Your task to perform on an android device: turn on translation in the chrome app Image 0: 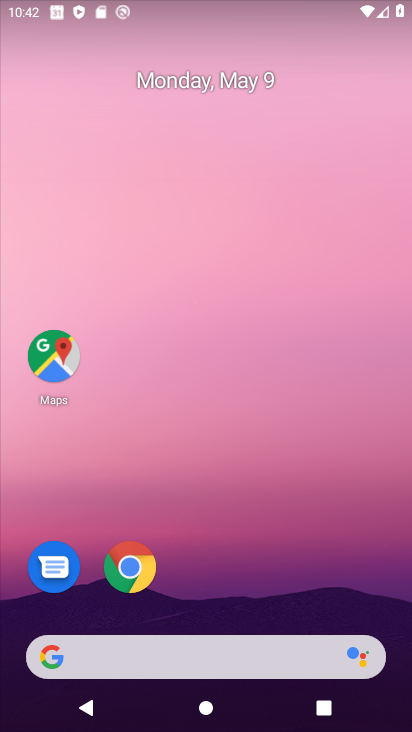
Step 0: drag from (354, 620) to (349, 84)
Your task to perform on an android device: turn on translation in the chrome app Image 1: 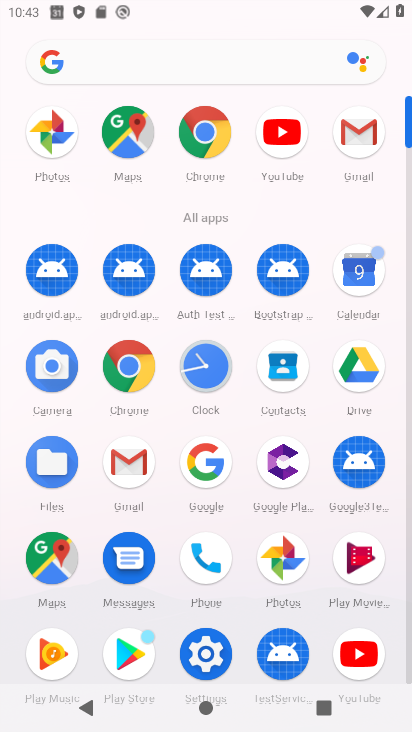
Step 1: click (200, 150)
Your task to perform on an android device: turn on translation in the chrome app Image 2: 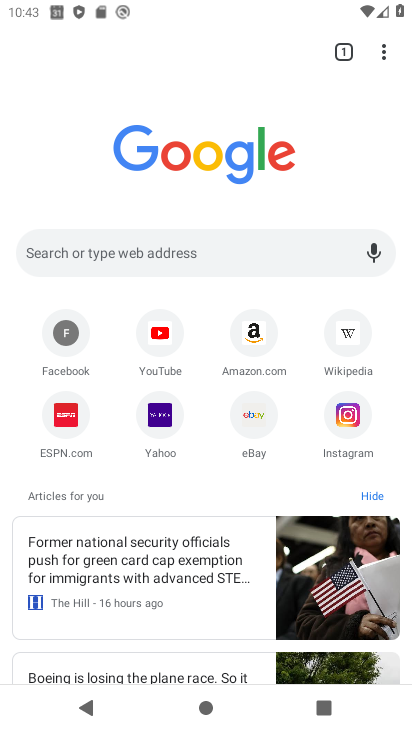
Step 2: click (384, 41)
Your task to perform on an android device: turn on translation in the chrome app Image 3: 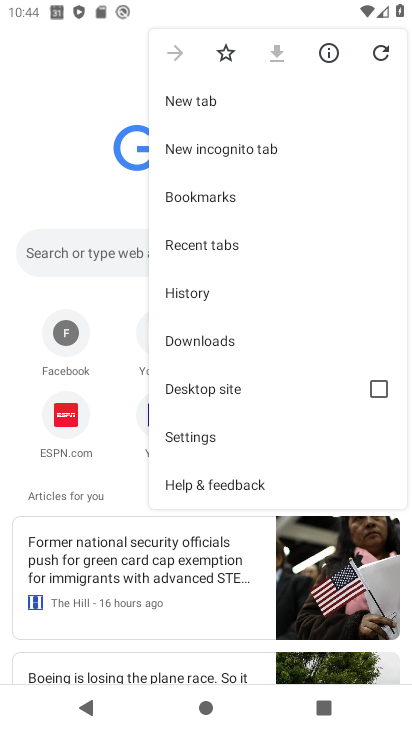
Step 3: click (182, 456)
Your task to perform on an android device: turn on translation in the chrome app Image 4: 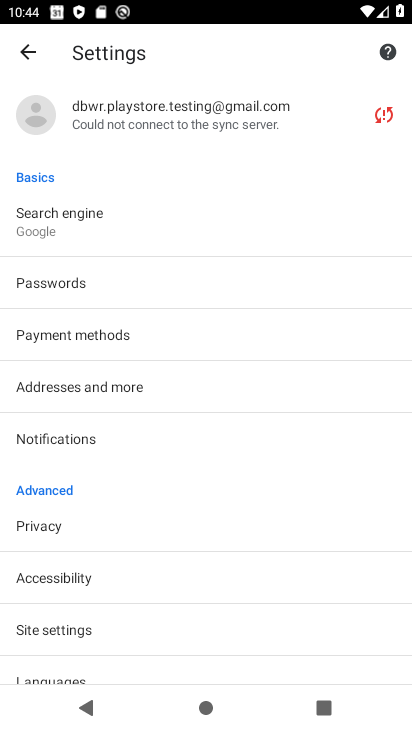
Step 4: click (150, 622)
Your task to perform on an android device: turn on translation in the chrome app Image 5: 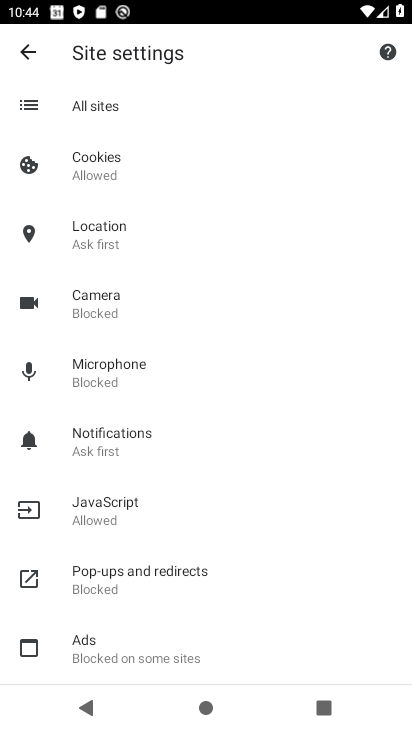
Step 5: press back button
Your task to perform on an android device: turn on translation in the chrome app Image 6: 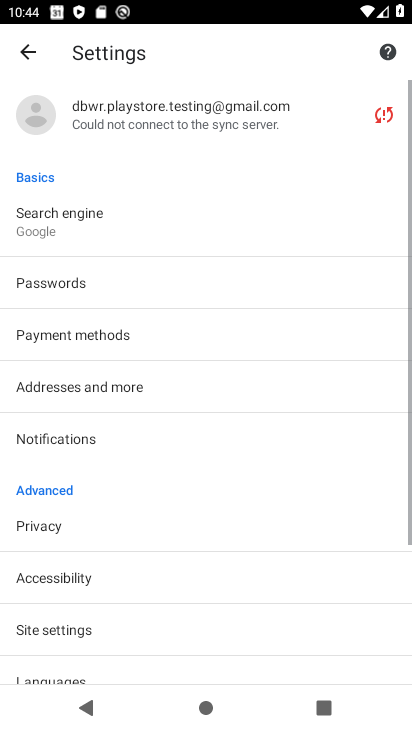
Step 6: click (126, 664)
Your task to perform on an android device: turn on translation in the chrome app Image 7: 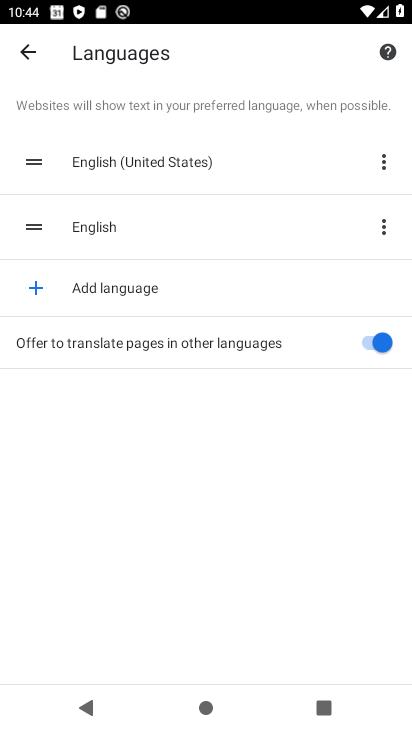
Step 7: task complete